Your task to perform on an android device: change text size in settings app Image 0: 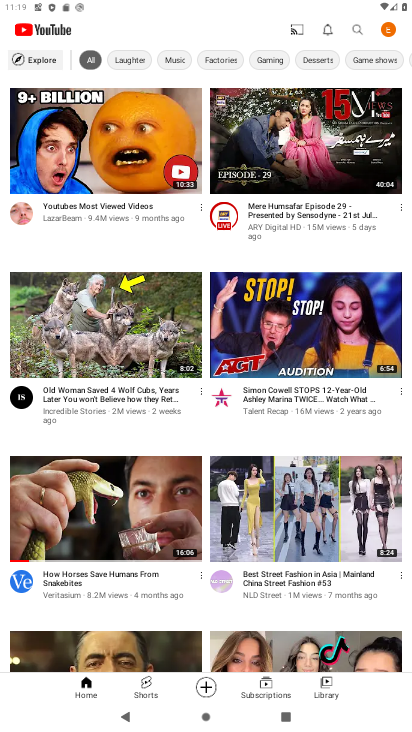
Step 0: press back button
Your task to perform on an android device: change text size in settings app Image 1: 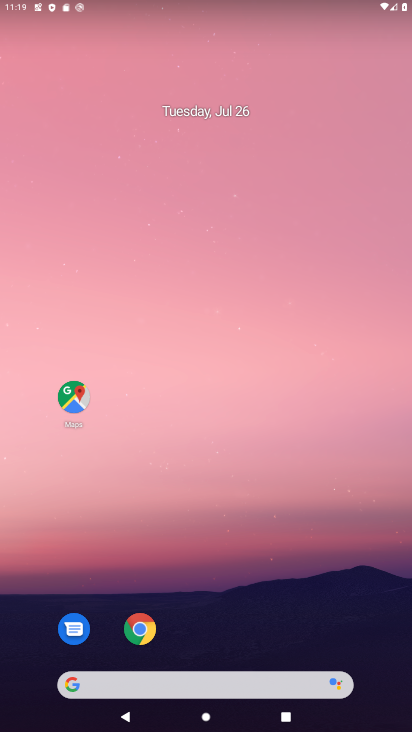
Step 1: drag from (248, 633) to (232, 137)
Your task to perform on an android device: change text size in settings app Image 2: 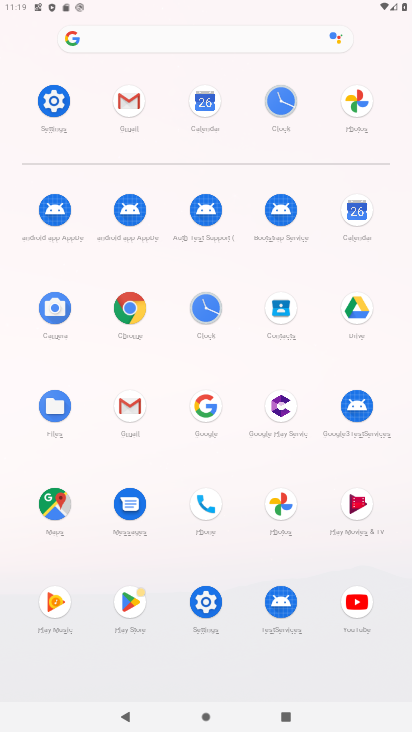
Step 2: click (66, 104)
Your task to perform on an android device: change text size in settings app Image 3: 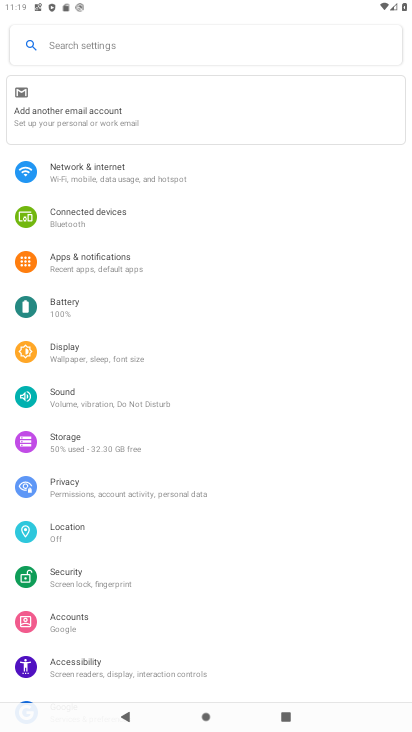
Step 3: click (148, 348)
Your task to perform on an android device: change text size in settings app Image 4: 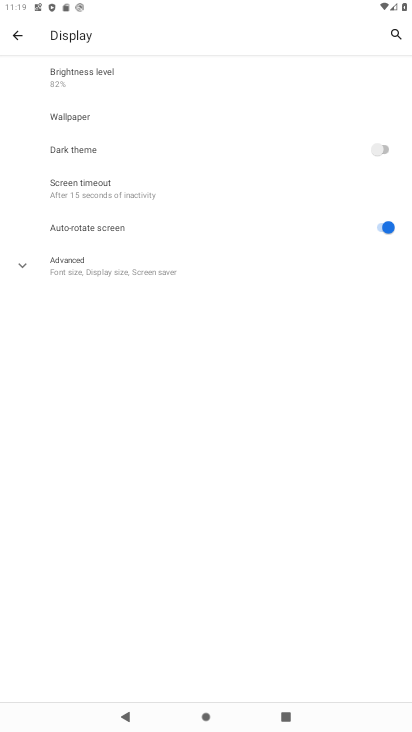
Step 4: click (193, 262)
Your task to perform on an android device: change text size in settings app Image 5: 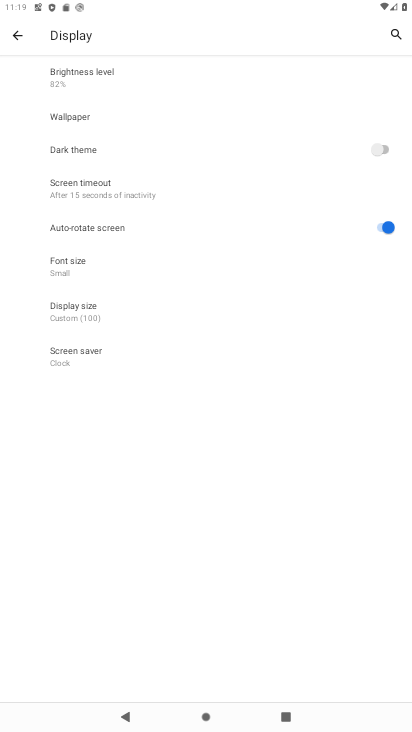
Step 5: click (193, 262)
Your task to perform on an android device: change text size in settings app Image 6: 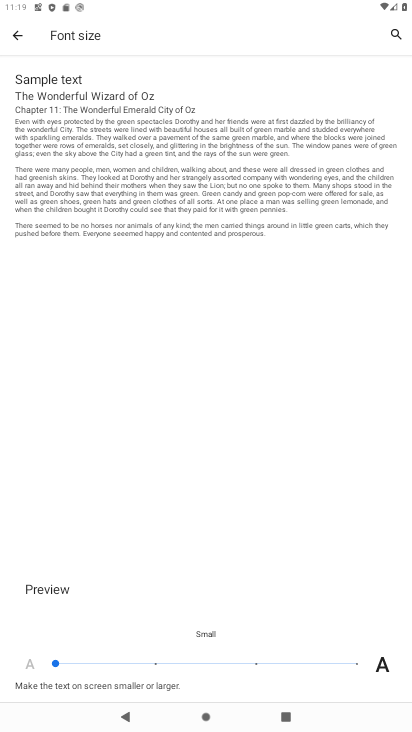
Step 6: click (359, 659)
Your task to perform on an android device: change text size in settings app Image 7: 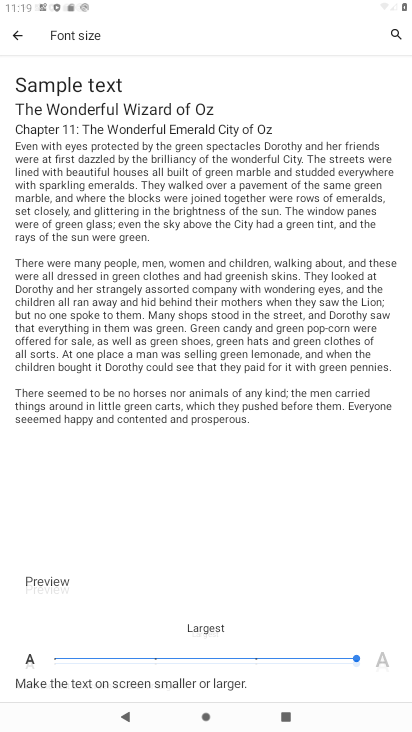
Step 7: task complete